Your task to perform on an android device: Open the calendar and show me this week's events? Image 0: 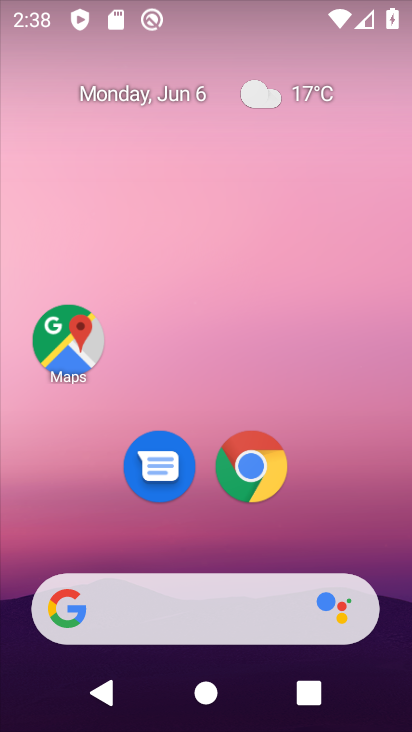
Step 0: click (163, 91)
Your task to perform on an android device: Open the calendar and show me this week's events? Image 1: 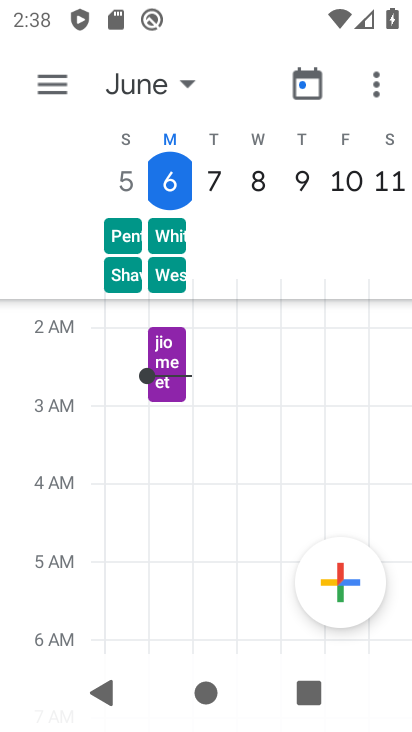
Step 1: task complete